Your task to perform on an android device: move a message to another label in the gmail app Image 0: 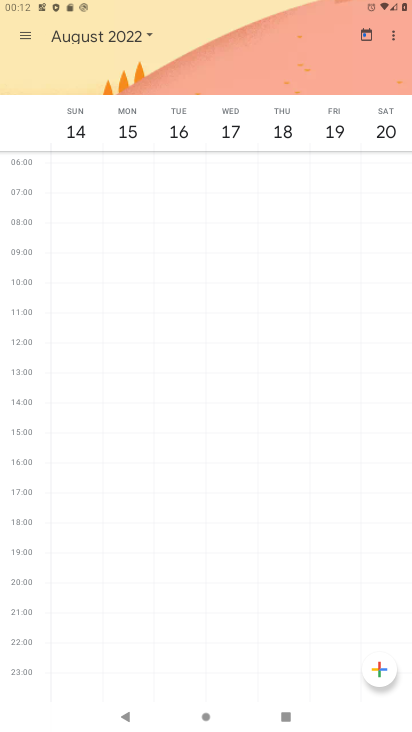
Step 0: press home button
Your task to perform on an android device: move a message to another label in the gmail app Image 1: 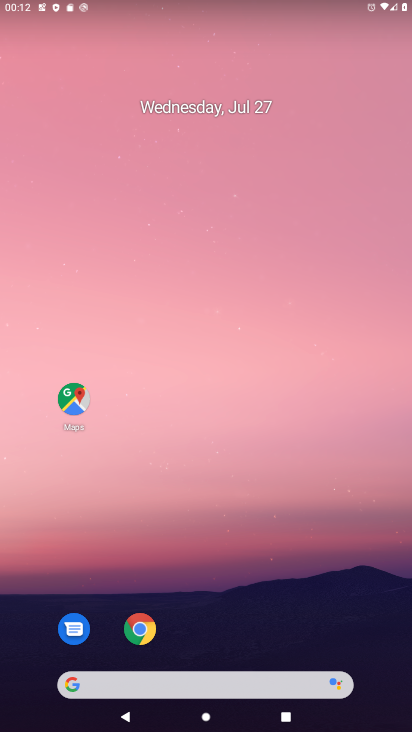
Step 1: drag from (173, 723) to (157, 168)
Your task to perform on an android device: move a message to another label in the gmail app Image 2: 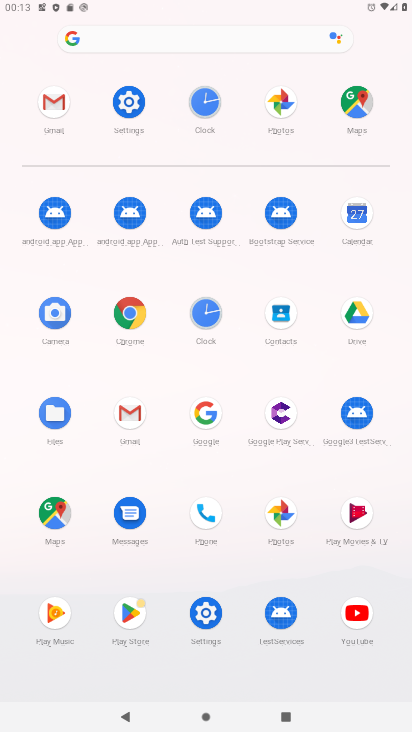
Step 2: click (131, 420)
Your task to perform on an android device: move a message to another label in the gmail app Image 3: 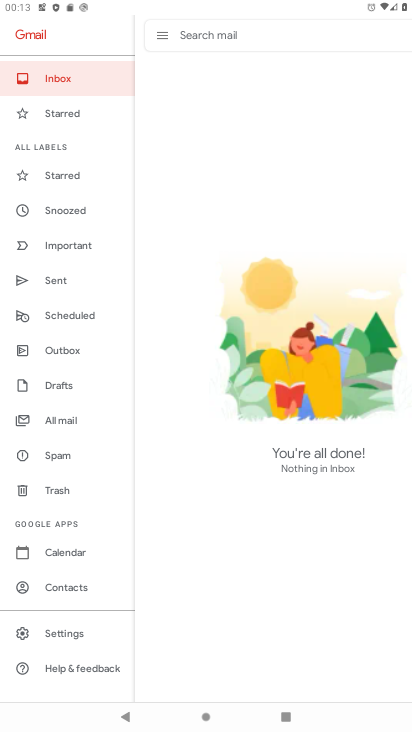
Step 3: task complete